Your task to perform on an android device: Open Google Chrome Image 0: 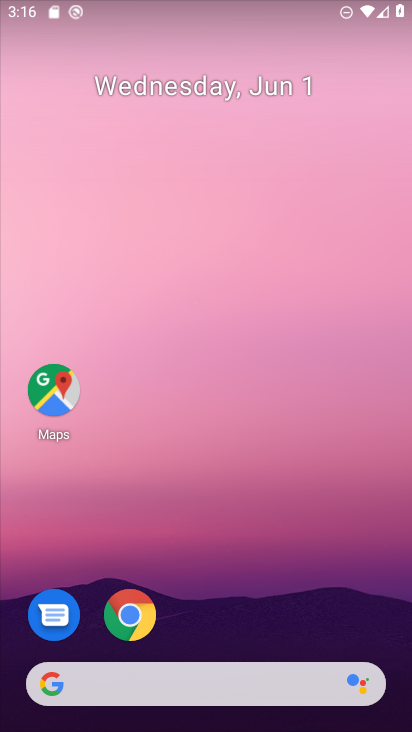
Step 0: press home button
Your task to perform on an android device: Open Google Chrome Image 1: 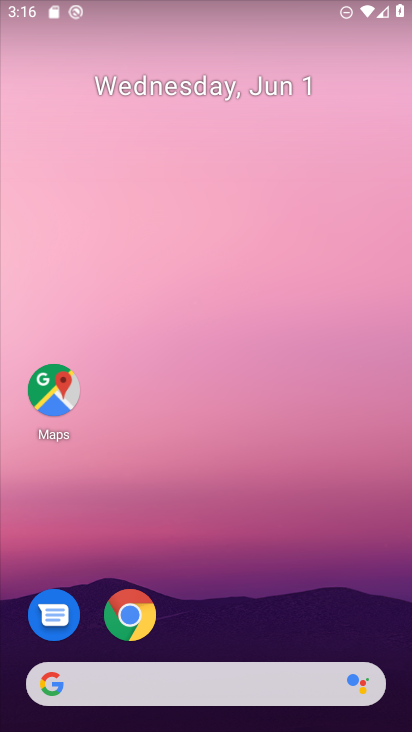
Step 1: click (127, 608)
Your task to perform on an android device: Open Google Chrome Image 2: 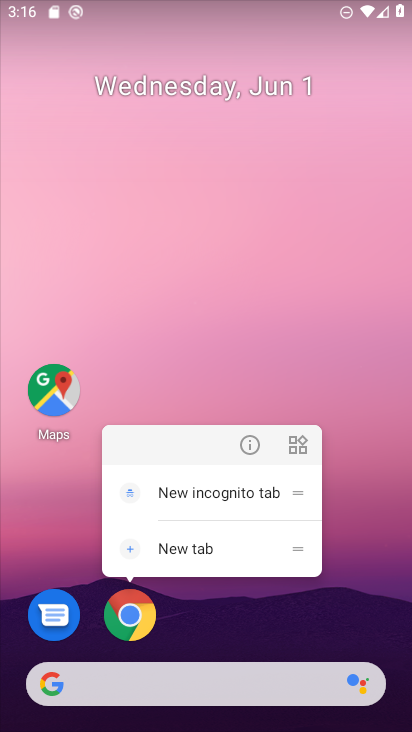
Step 2: click (129, 606)
Your task to perform on an android device: Open Google Chrome Image 3: 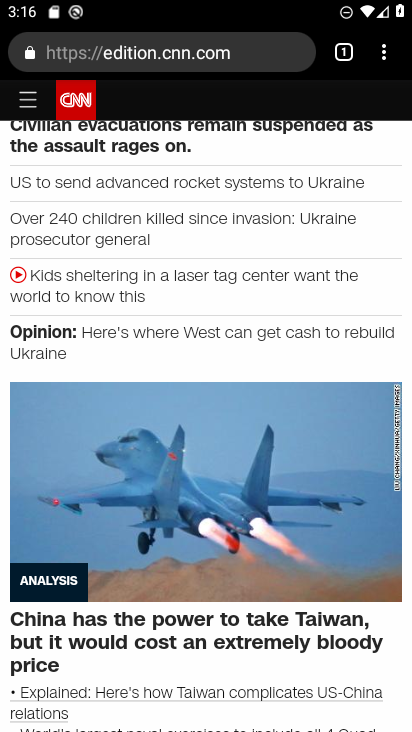
Step 3: click (336, 44)
Your task to perform on an android device: Open Google Chrome Image 4: 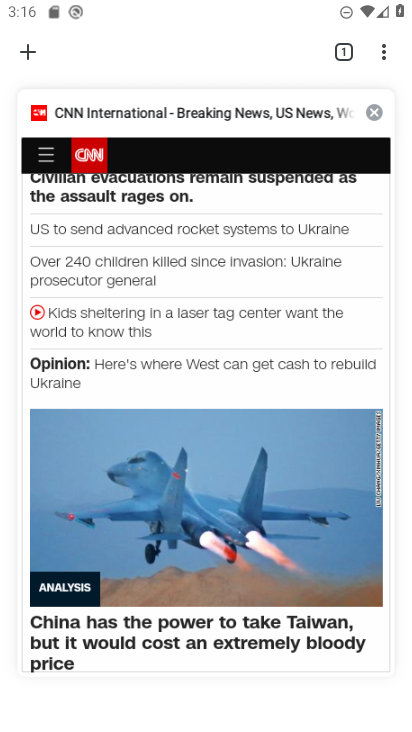
Step 4: click (373, 108)
Your task to perform on an android device: Open Google Chrome Image 5: 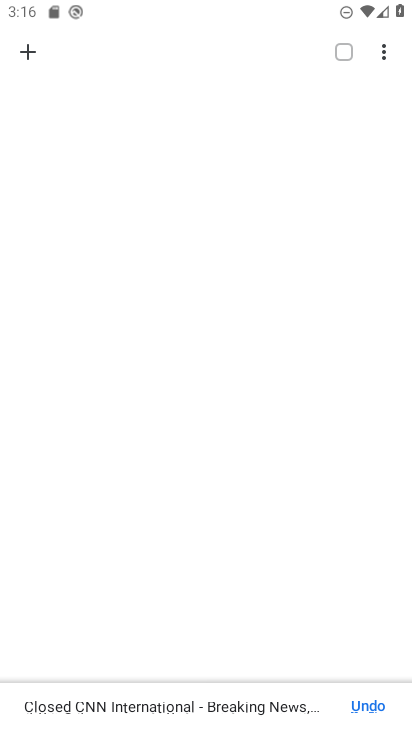
Step 5: click (29, 53)
Your task to perform on an android device: Open Google Chrome Image 6: 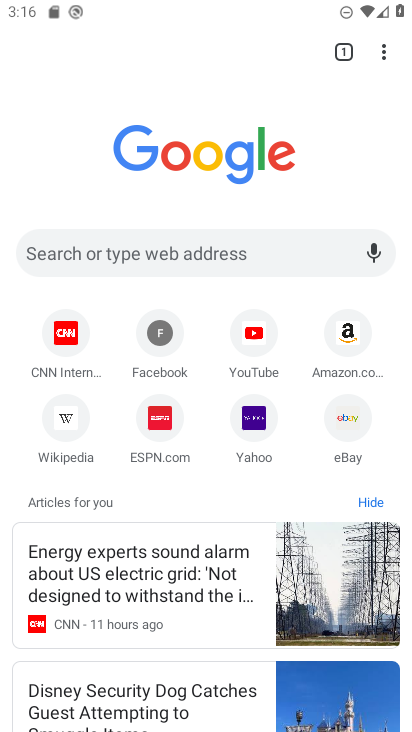
Step 6: task complete